Your task to perform on an android device: Open calendar and show me the third week of next month Image 0: 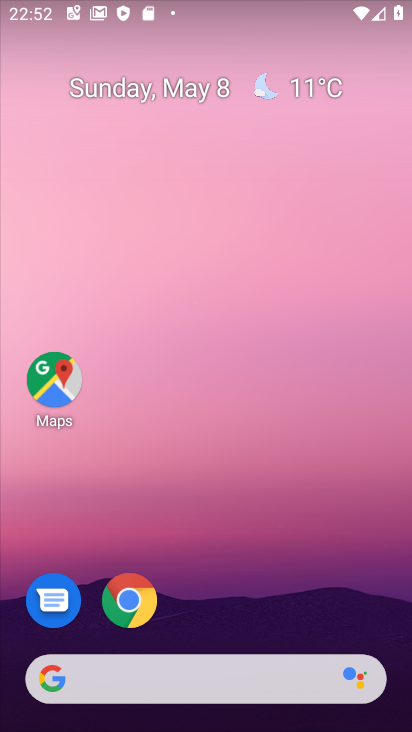
Step 0: click (181, 85)
Your task to perform on an android device: Open calendar and show me the third week of next month Image 1: 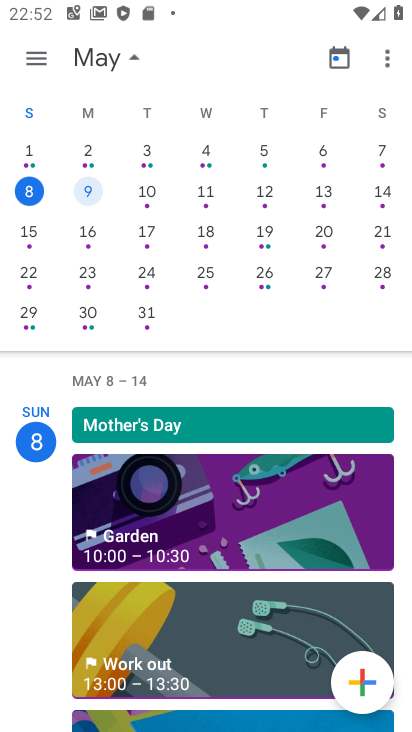
Step 1: drag from (351, 338) to (59, 300)
Your task to perform on an android device: Open calendar and show me the third week of next month Image 2: 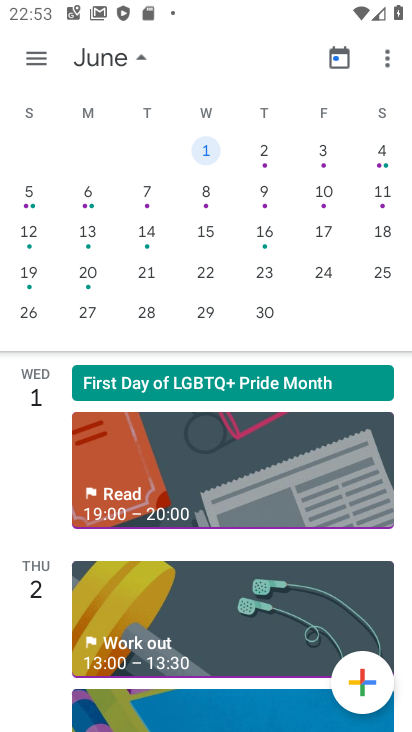
Step 2: click (267, 234)
Your task to perform on an android device: Open calendar and show me the third week of next month Image 3: 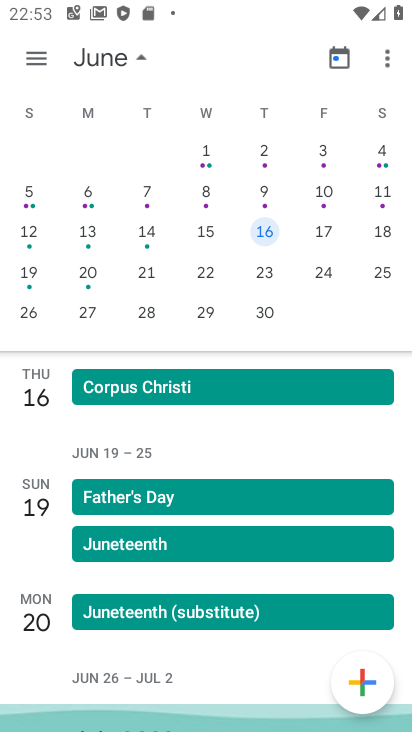
Step 3: task complete